Your task to perform on an android device: turn off location Image 0: 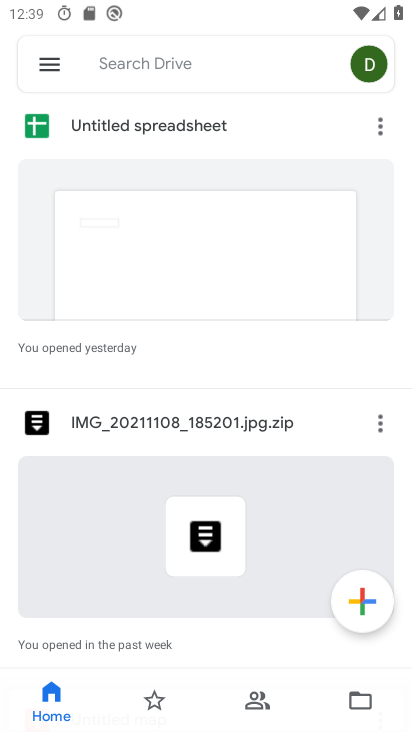
Step 0: press home button
Your task to perform on an android device: turn off location Image 1: 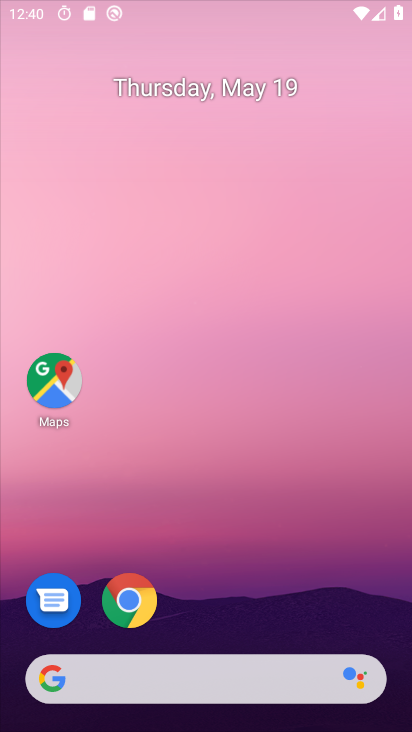
Step 1: drag from (305, 540) to (177, 35)
Your task to perform on an android device: turn off location Image 2: 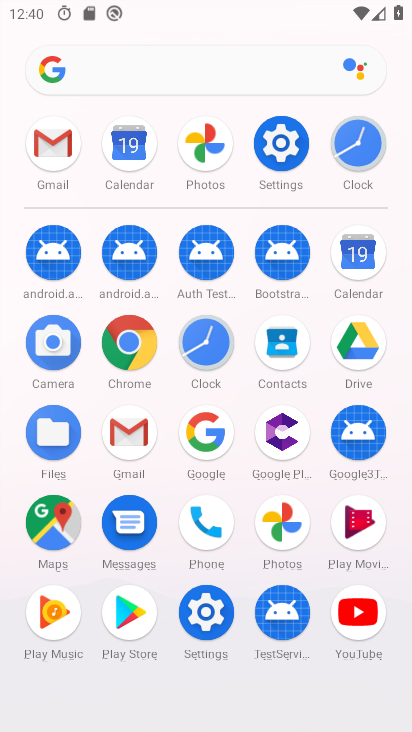
Step 2: click (262, 144)
Your task to perform on an android device: turn off location Image 3: 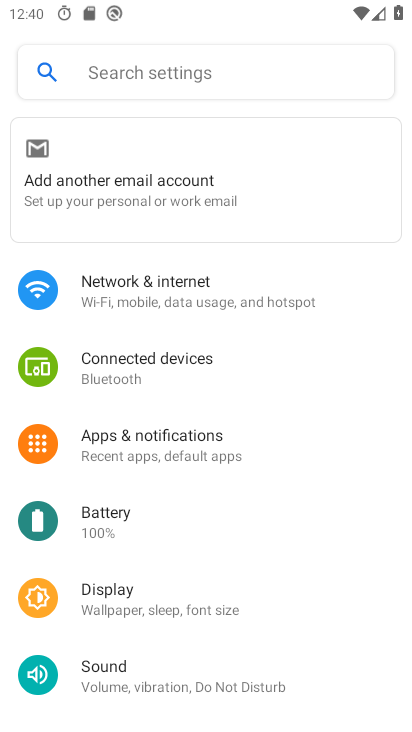
Step 3: drag from (236, 614) to (231, 193)
Your task to perform on an android device: turn off location Image 4: 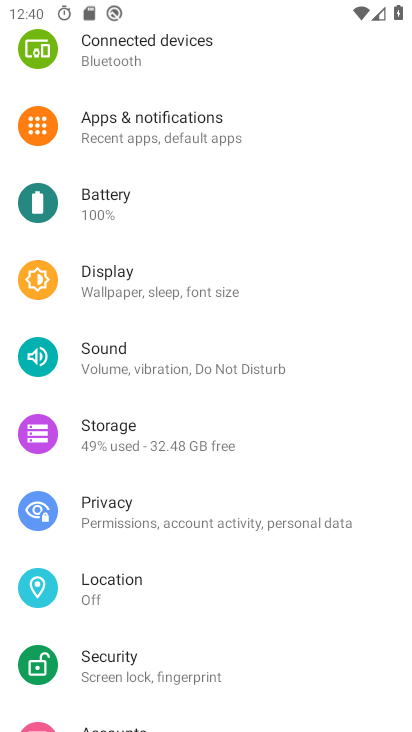
Step 4: click (180, 591)
Your task to perform on an android device: turn off location Image 5: 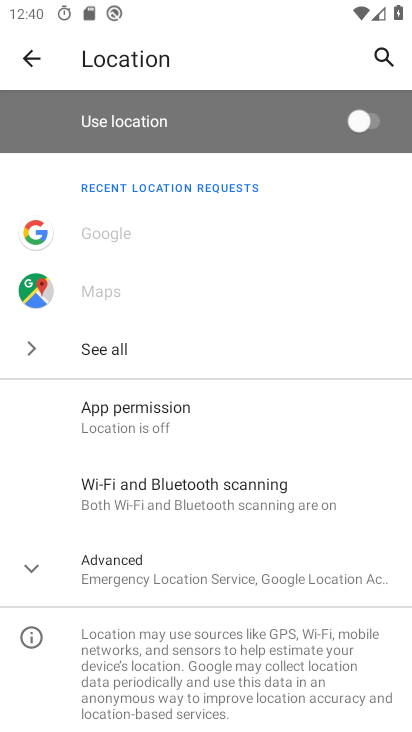
Step 5: task complete